Your task to perform on an android device: Open settings Image 0: 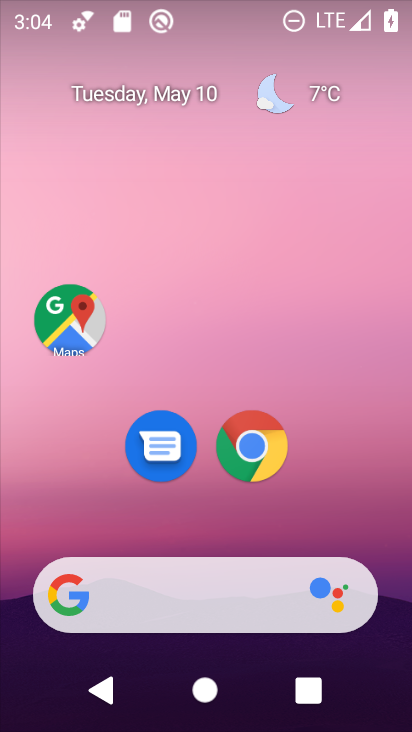
Step 0: drag from (231, 462) to (239, 99)
Your task to perform on an android device: Open settings Image 1: 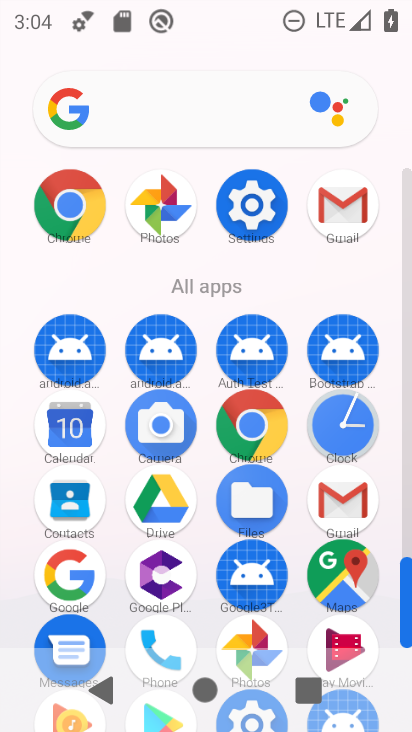
Step 1: click (261, 192)
Your task to perform on an android device: Open settings Image 2: 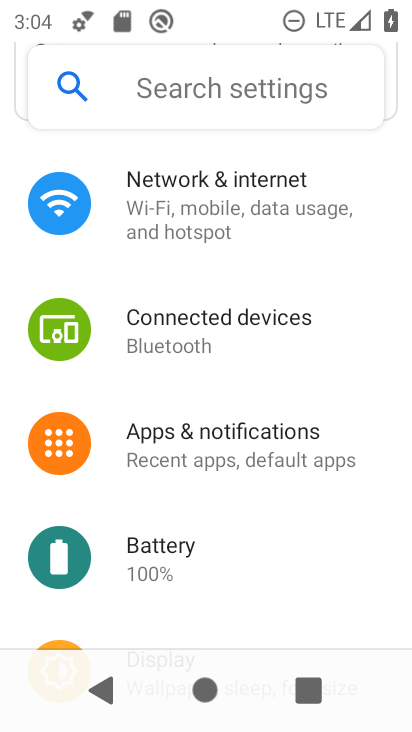
Step 2: task complete